Your task to perform on an android device: set the stopwatch Image 0: 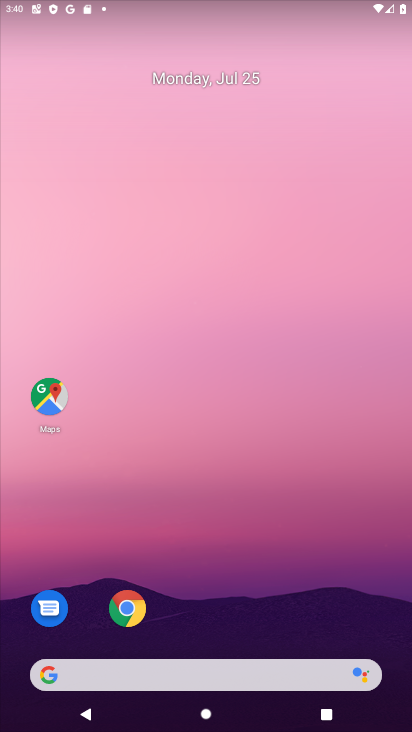
Step 0: press home button
Your task to perform on an android device: set the stopwatch Image 1: 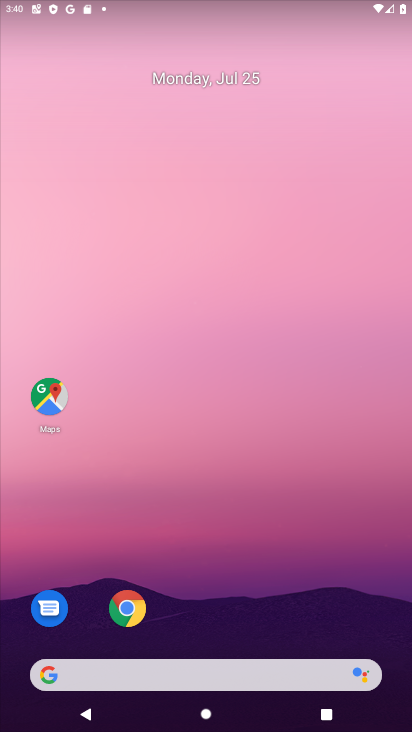
Step 1: drag from (222, 633) to (223, 31)
Your task to perform on an android device: set the stopwatch Image 2: 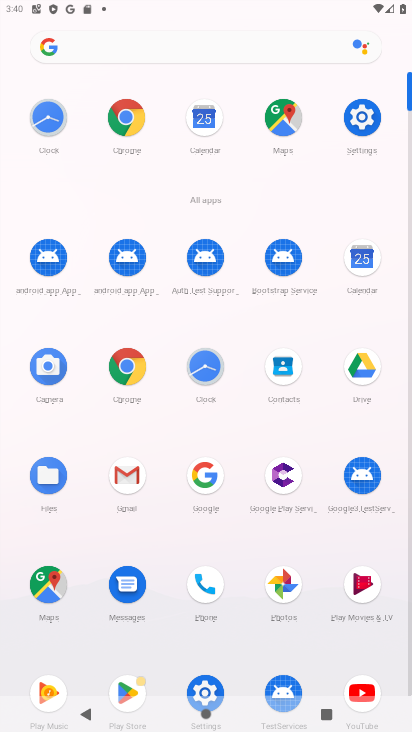
Step 2: click (204, 367)
Your task to perform on an android device: set the stopwatch Image 3: 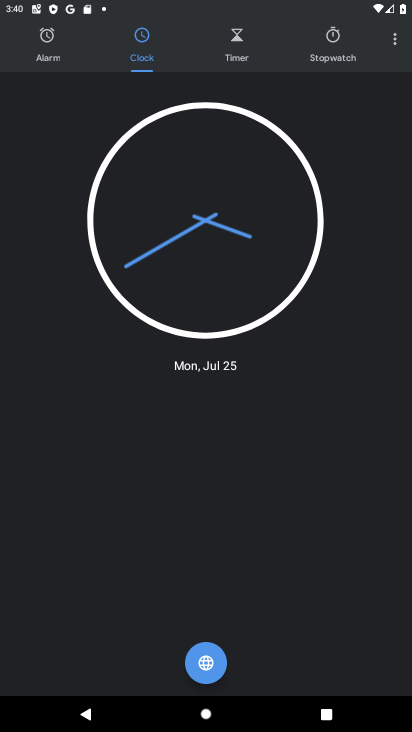
Step 3: click (328, 40)
Your task to perform on an android device: set the stopwatch Image 4: 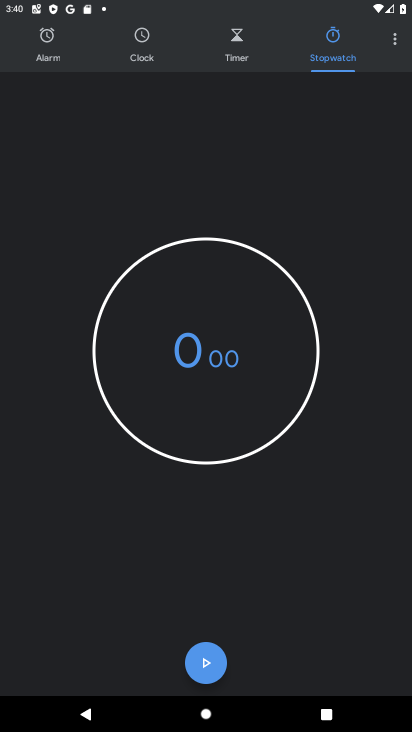
Step 4: click (203, 657)
Your task to perform on an android device: set the stopwatch Image 5: 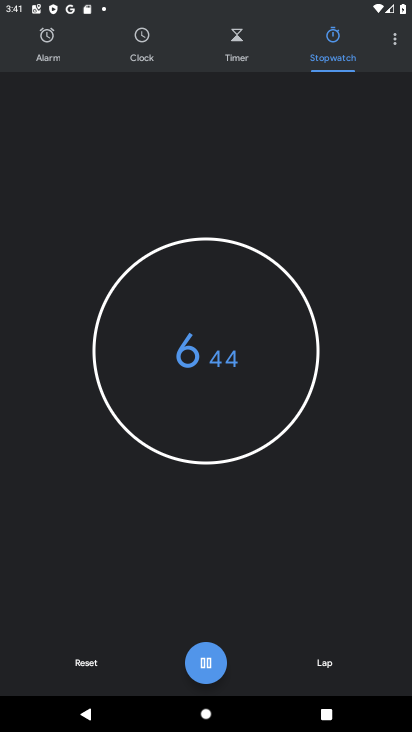
Step 5: task complete